Your task to perform on an android device: Open wifi settings Image 0: 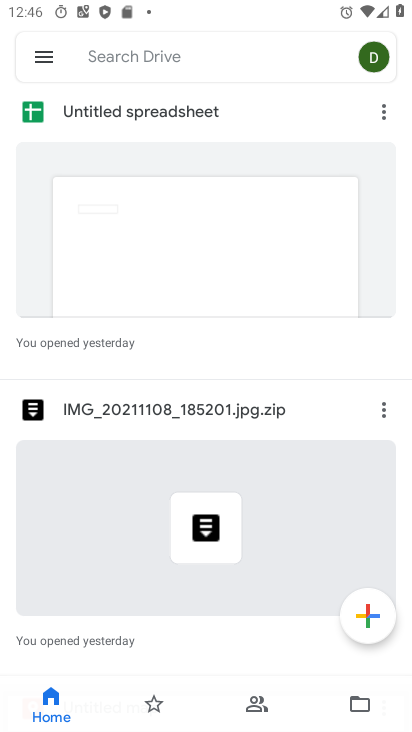
Step 0: press home button
Your task to perform on an android device: Open wifi settings Image 1: 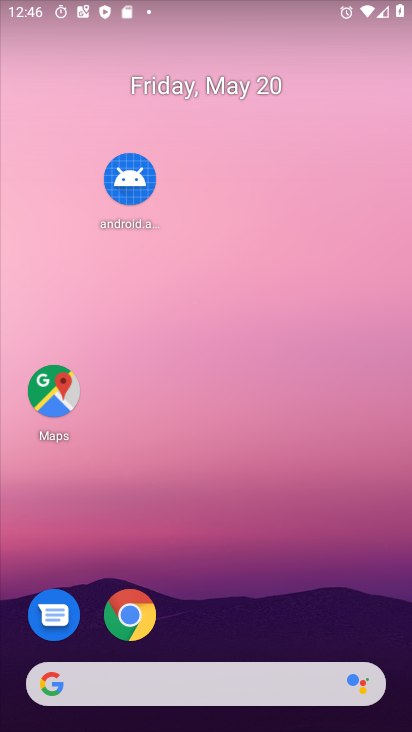
Step 1: drag from (250, 14) to (325, 414)
Your task to perform on an android device: Open wifi settings Image 2: 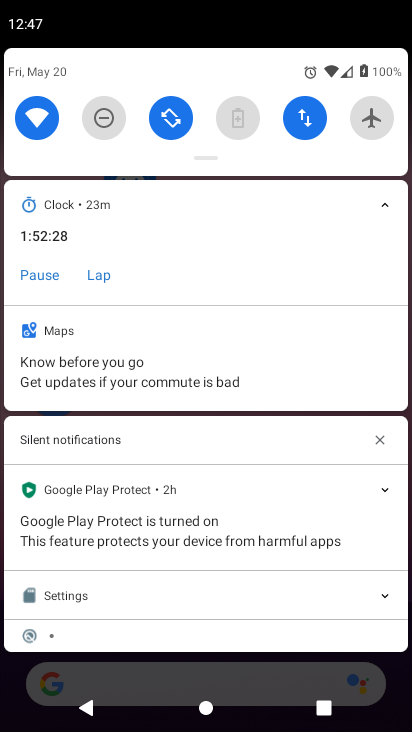
Step 2: click (41, 120)
Your task to perform on an android device: Open wifi settings Image 3: 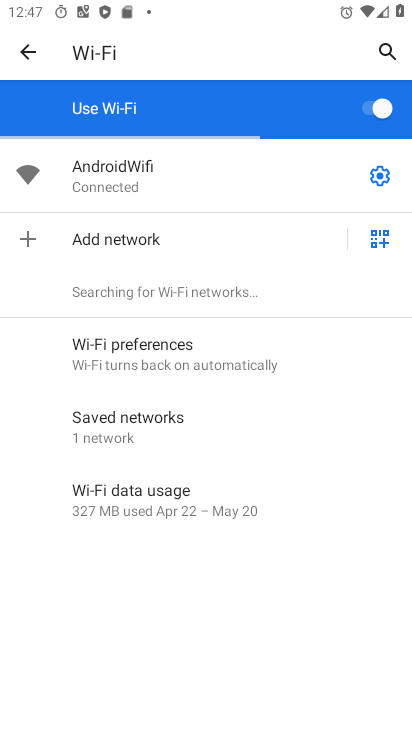
Step 3: task complete